Your task to perform on an android device: Open Google Chrome Image 0: 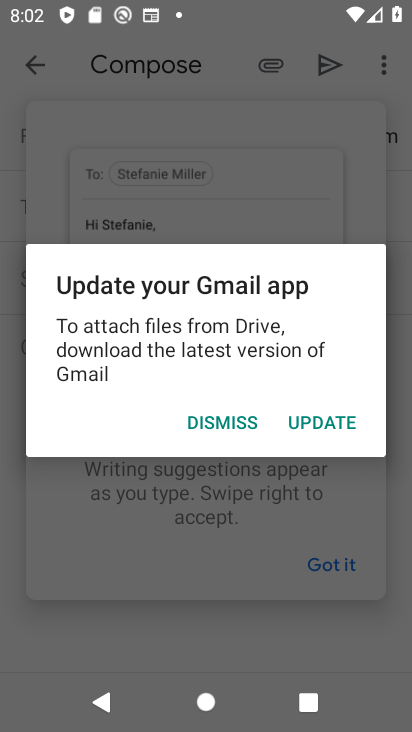
Step 0: press home button
Your task to perform on an android device: Open Google Chrome Image 1: 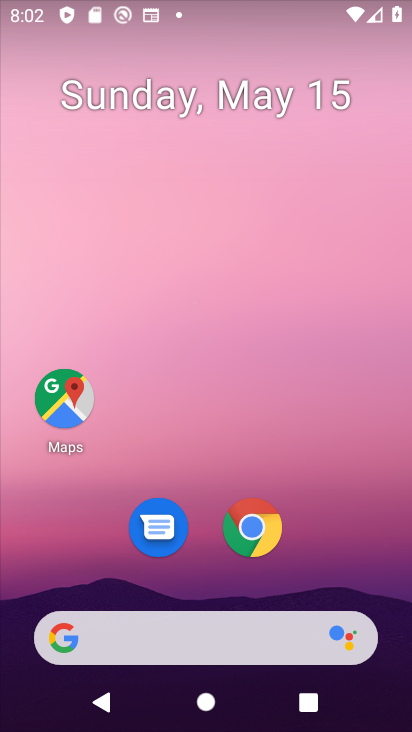
Step 1: click (233, 541)
Your task to perform on an android device: Open Google Chrome Image 2: 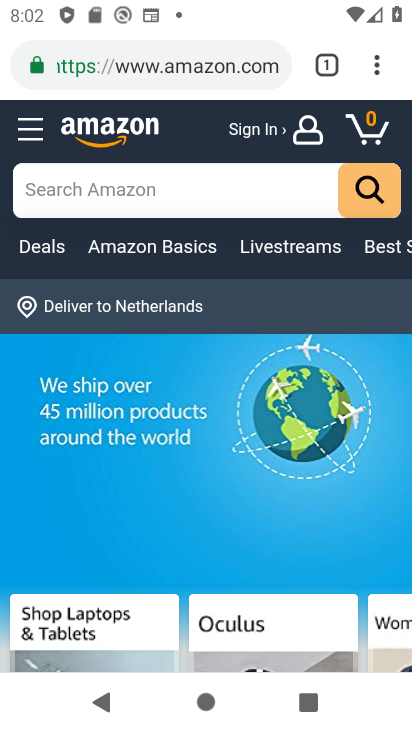
Step 2: task complete